Your task to perform on an android device: Search for seafood restaurants on Google Maps Image 0: 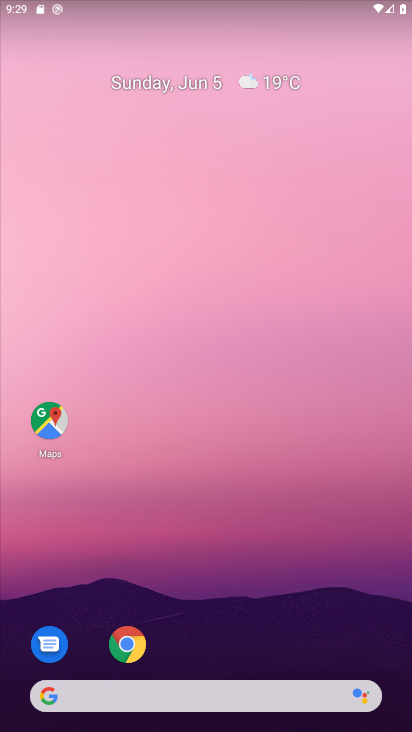
Step 0: click (58, 412)
Your task to perform on an android device: Search for seafood restaurants on Google Maps Image 1: 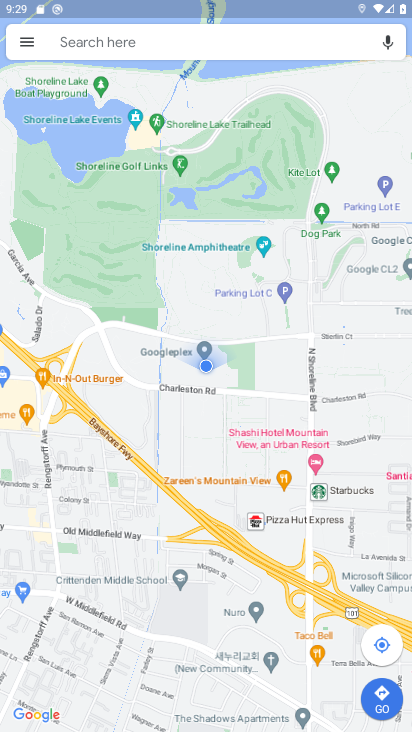
Step 1: click (186, 48)
Your task to perform on an android device: Search for seafood restaurants on Google Maps Image 2: 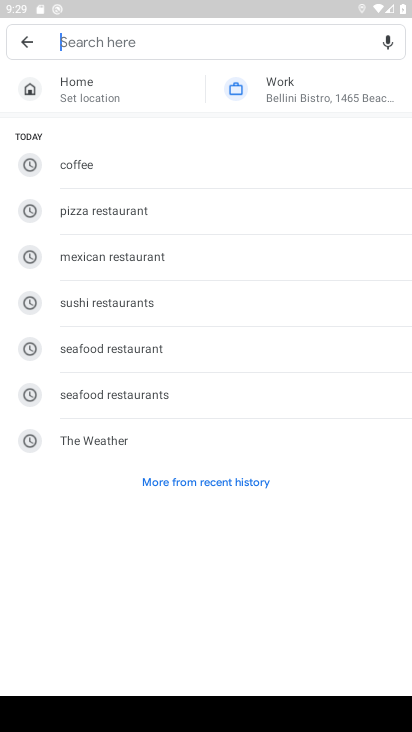
Step 2: click (114, 346)
Your task to perform on an android device: Search for seafood restaurants on Google Maps Image 3: 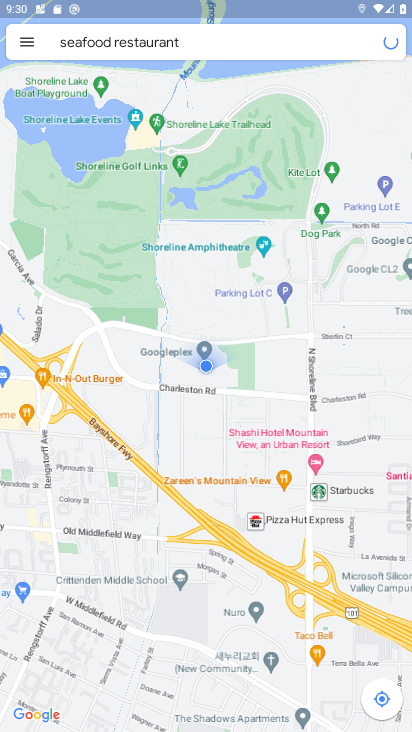
Step 3: task complete